Your task to perform on an android device: change the clock display to digital Image 0: 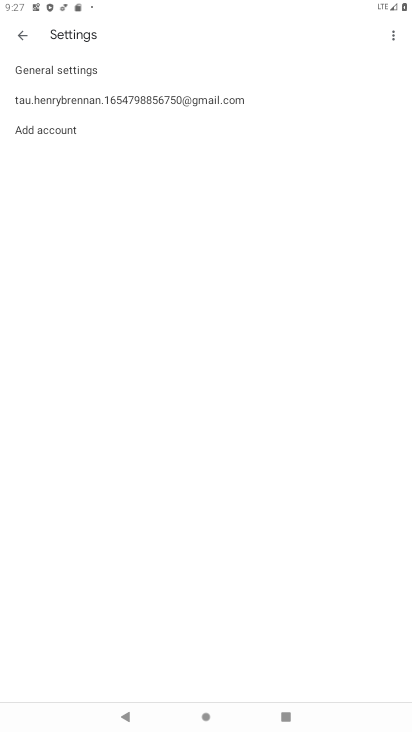
Step 0: press home button
Your task to perform on an android device: change the clock display to digital Image 1: 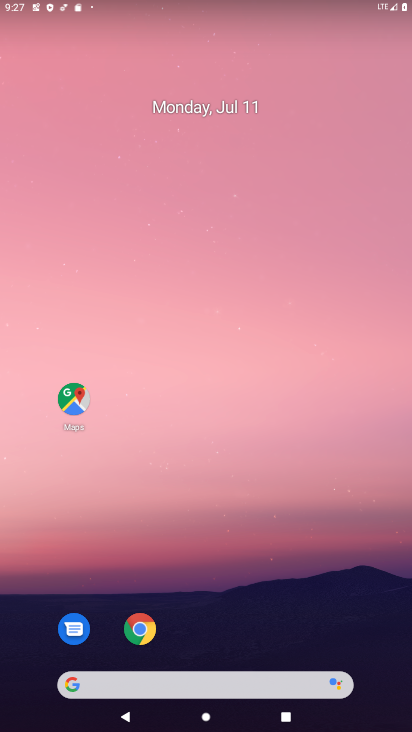
Step 1: drag from (22, 694) to (127, 169)
Your task to perform on an android device: change the clock display to digital Image 2: 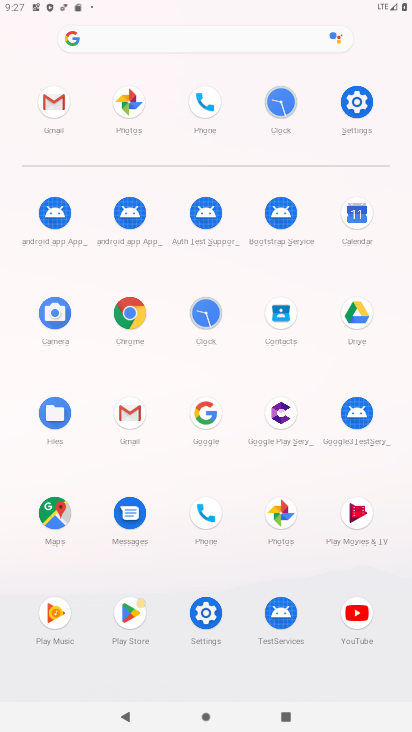
Step 2: click (211, 323)
Your task to perform on an android device: change the clock display to digital Image 3: 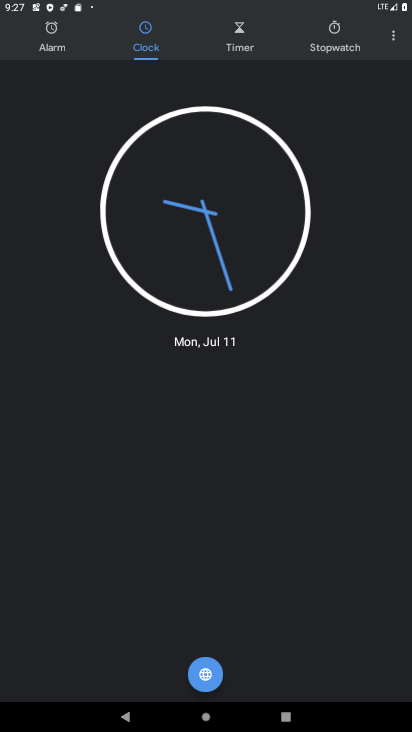
Step 3: click (386, 36)
Your task to perform on an android device: change the clock display to digital Image 4: 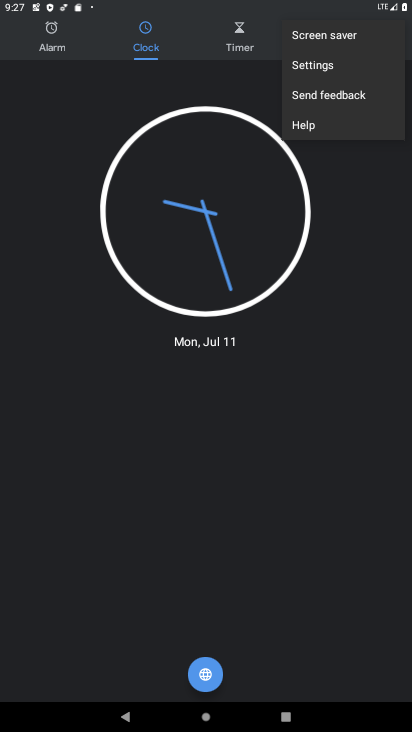
Step 4: click (313, 65)
Your task to perform on an android device: change the clock display to digital Image 5: 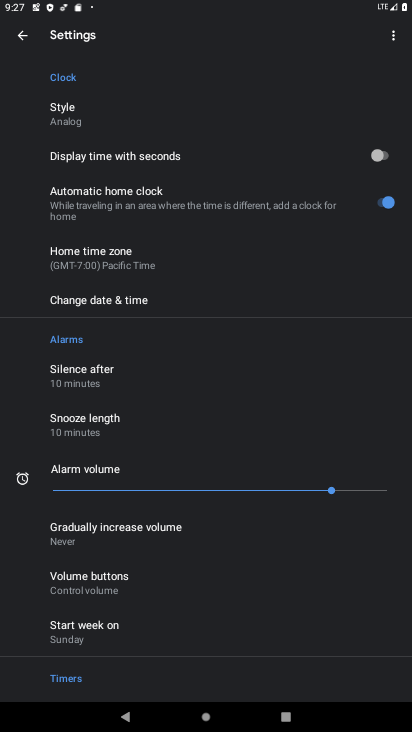
Step 5: click (123, 113)
Your task to perform on an android device: change the clock display to digital Image 6: 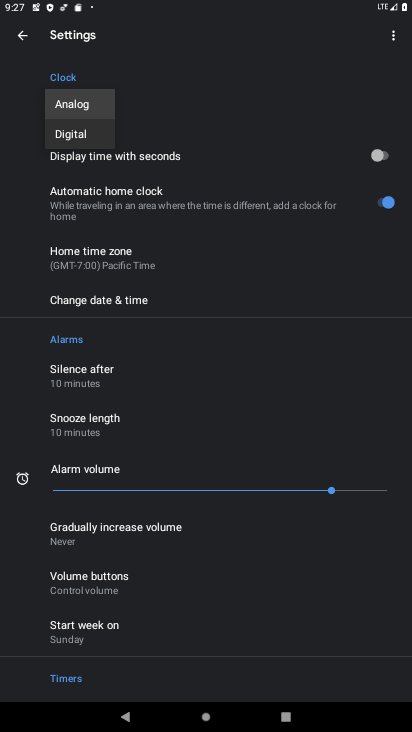
Step 6: click (78, 141)
Your task to perform on an android device: change the clock display to digital Image 7: 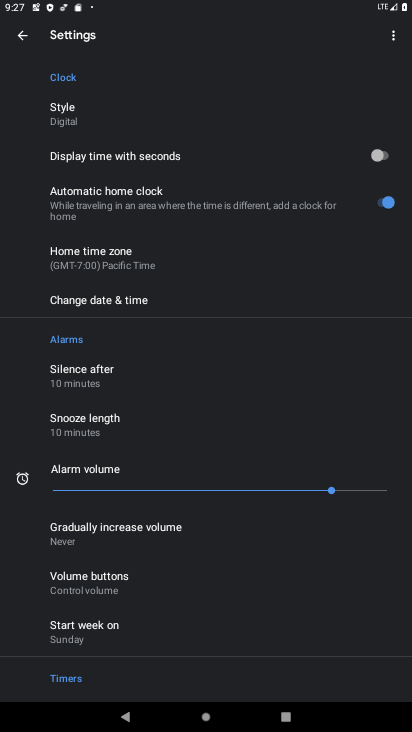
Step 7: task complete